Your task to perform on an android device: Show me productivity apps on the Play Store Image 0: 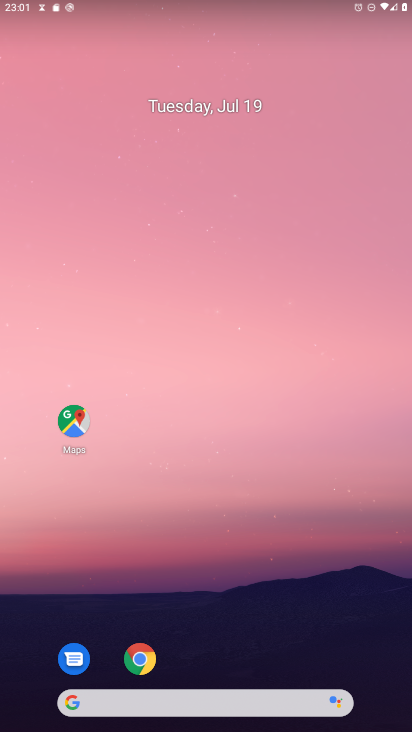
Step 0: drag from (242, 506) to (283, 217)
Your task to perform on an android device: Show me productivity apps on the Play Store Image 1: 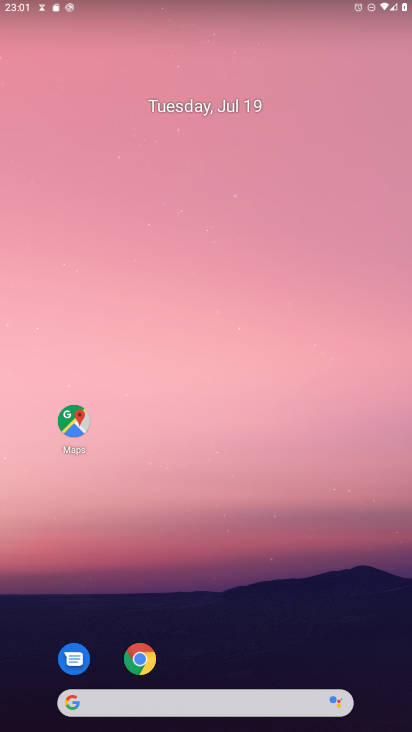
Step 1: drag from (208, 582) to (209, 132)
Your task to perform on an android device: Show me productivity apps on the Play Store Image 2: 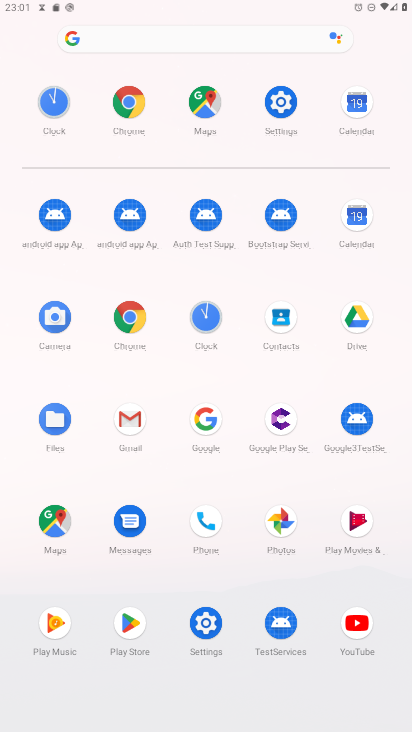
Step 2: click (122, 619)
Your task to perform on an android device: Show me productivity apps on the Play Store Image 3: 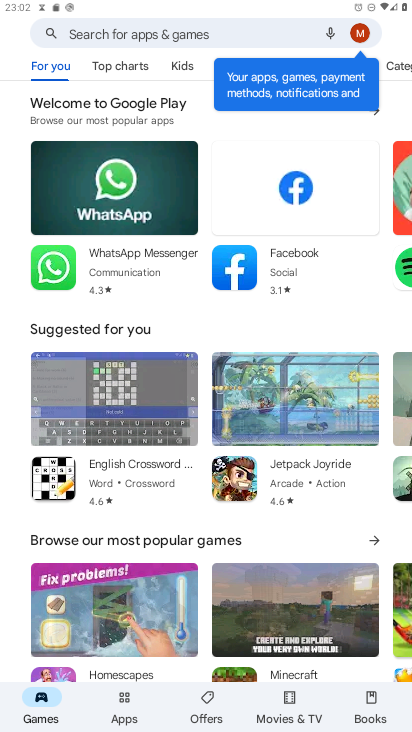
Step 3: click (125, 701)
Your task to perform on an android device: Show me productivity apps on the Play Store Image 4: 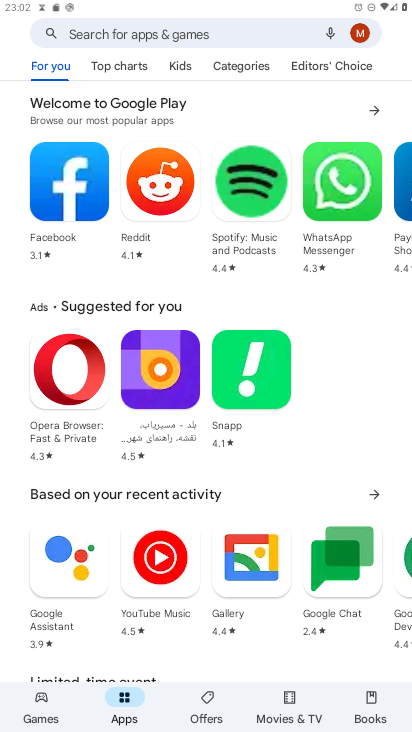
Step 4: task complete